Your task to perform on an android device: set default search engine in the chrome app Image 0: 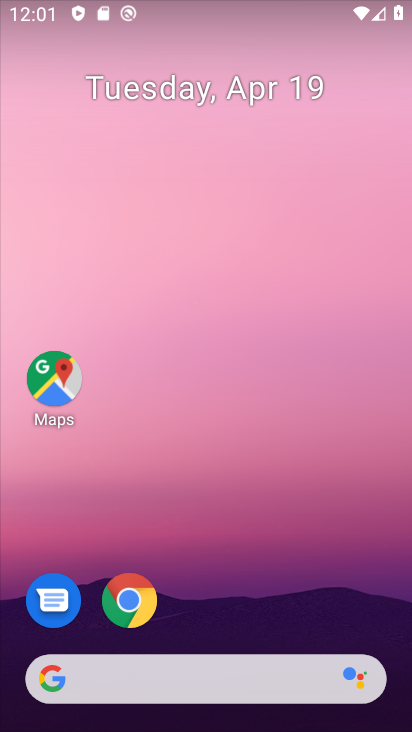
Step 0: drag from (299, 467) to (249, 73)
Your task to perform on an android device: set default search engine in the chrome app Image 1: 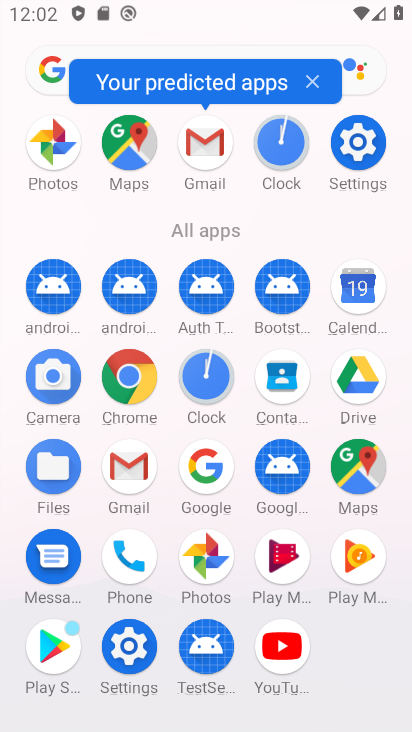
Step 1: click (125, 376)
Your task to perform on an android device: set default search engine in the chrome app Image 2: 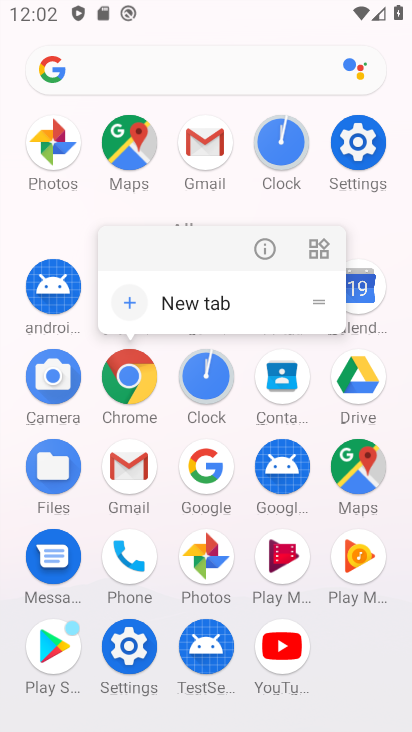
Step 2: click (128, 382)
Your task to perform on an android device: set default search engine in the chrome app Image 3: 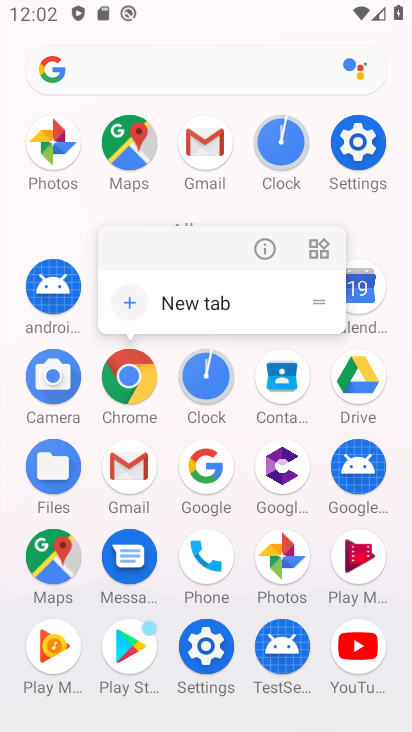
Step 3: click (128, 380)
Your task to perform on an android device: set default search engine in the chrome app Image 4: 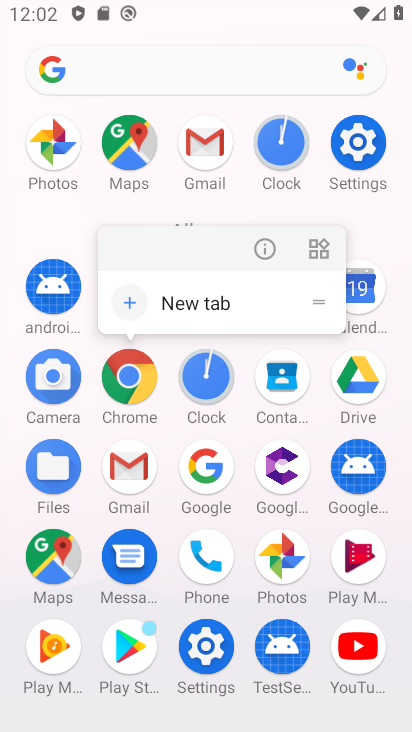
Step 4: click (106, 383)
Your task to perform on an android device: set default search engine in the chrome app Image 5: 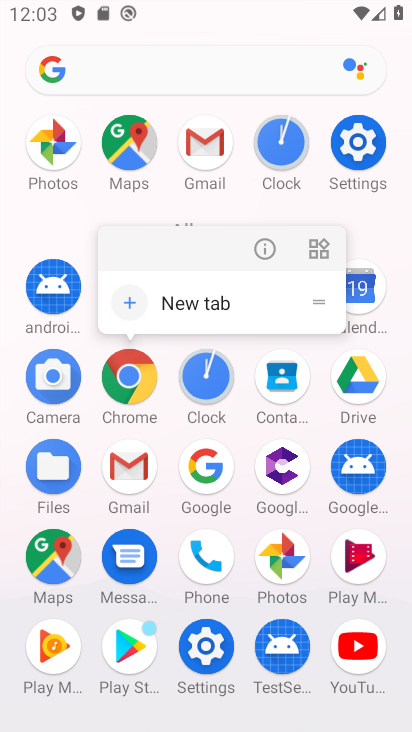
Step 5: click (147, 359)
Your task to perform on an android device: set default search engine in the chrome app Image 6: 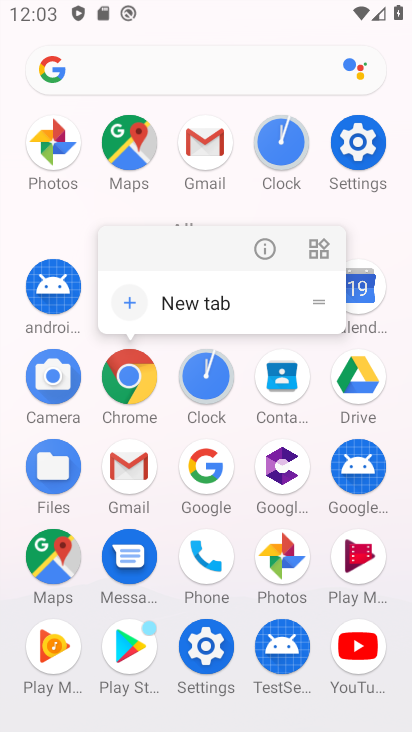
Step 6: click (127, 376)
Your task to perform on an android device: set default search engine in the chrome app Image 7: 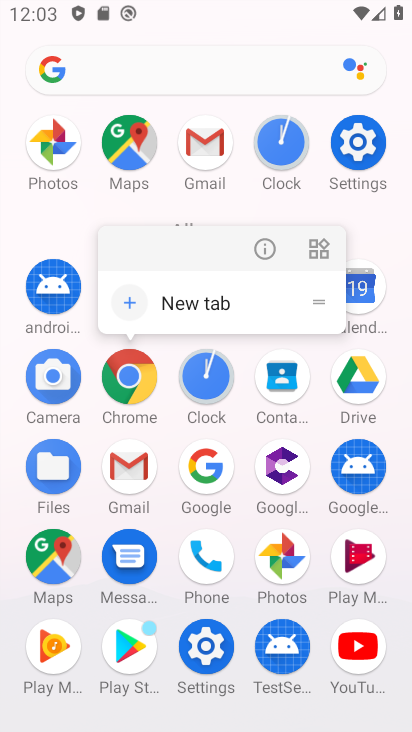
Step 7: click (114, 385)
Your task to perform on an android device: set default search engine in the chrome app Image 8: 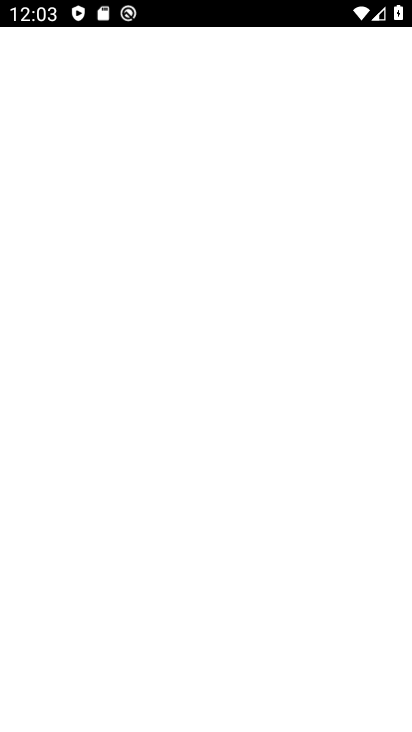
Step 8: click (143, 353)
Your task to perform on an android device: set default search engine in the chrome app Image 9: 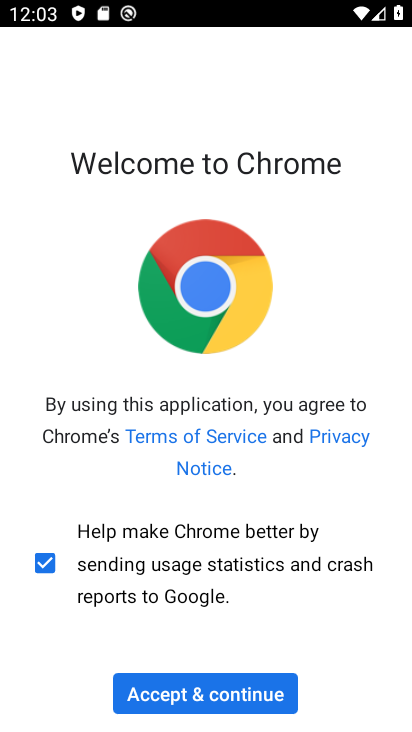
Step 9: click (209, 681)
Your task to perform on an android device: set default search engine in the chrome app Image 10: 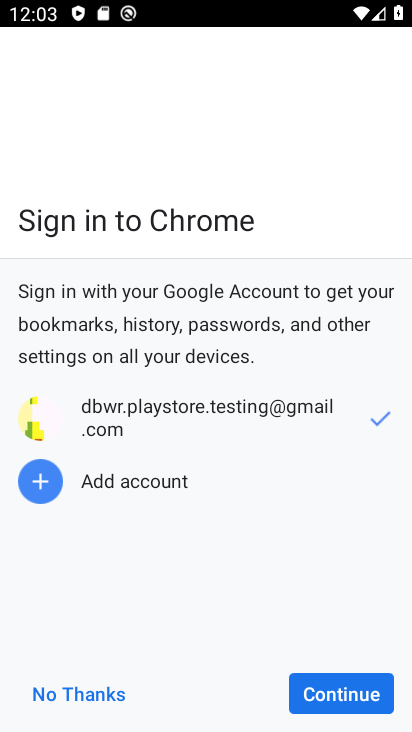
Step 10: click (49, 696)
Your task to perform on an android device: set default search engine in the chrome app Image 11: 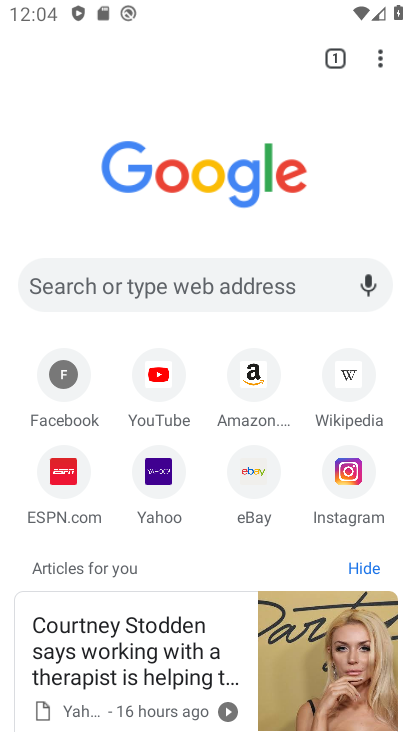
Step 11: drag from (382, 49) to (156, 496)
Your task to perform on an android device: set default search engine in the chrome app Image 12: 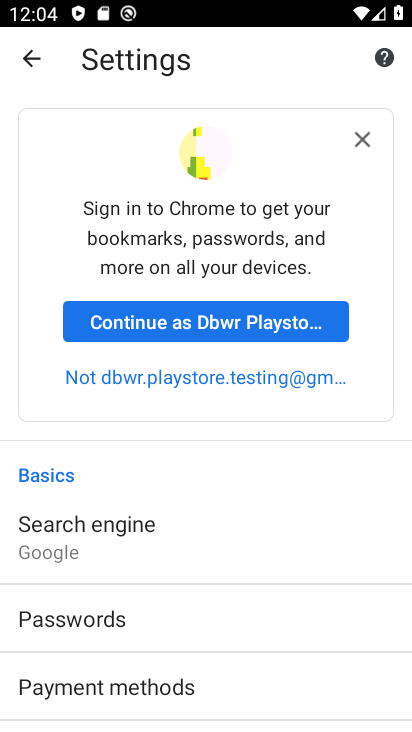
Step 12: drag from (240, 637) to (303, 315)
Your task to perform on an android device: set default search engine in the chrome app Image 13: 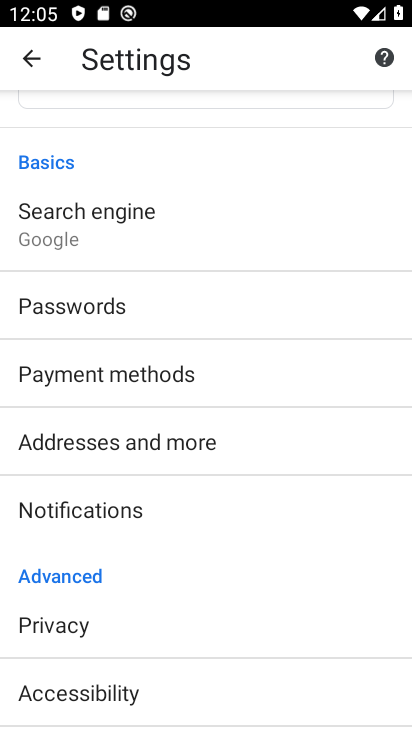
Step 13: click (210, 238)
Your task to perform on an android device: set default search engine in the chrome app Image 14: 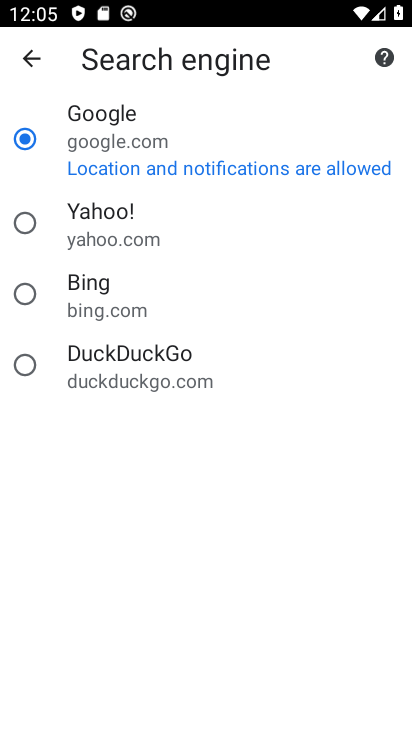
Step 14: click (30, 53)
Your task to perform on an android device: set default search engine in the chrome app Image 15: 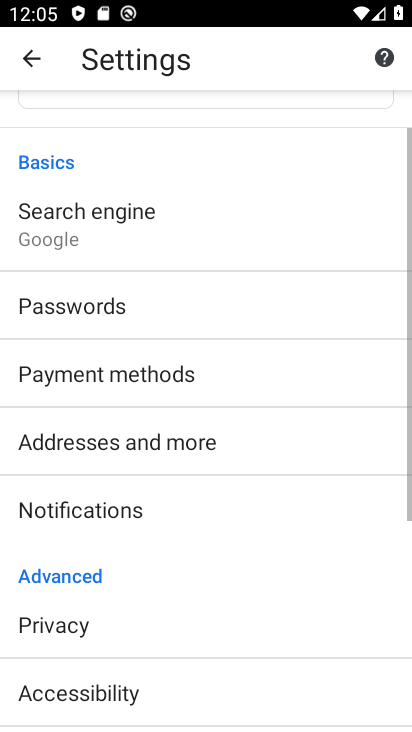
Step 15: click (81, 213)
Your task to perform on an android device: set default search engine in the chrome app Image 16: 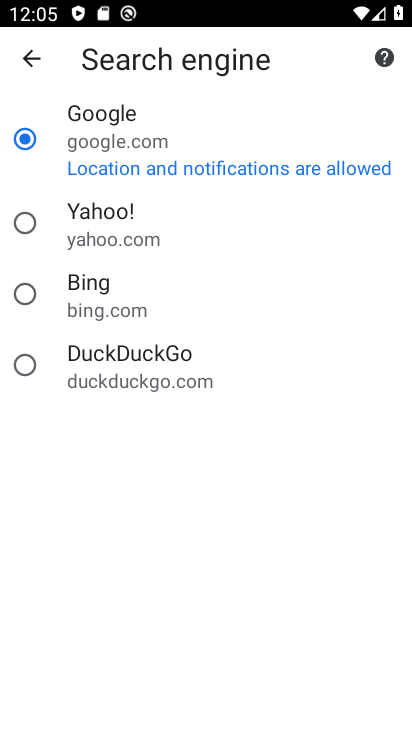
Step 16: task complete